Your task to perform on an android device: Add "razer blade" to the cart on ebay.com, then select checkout. Image 0: 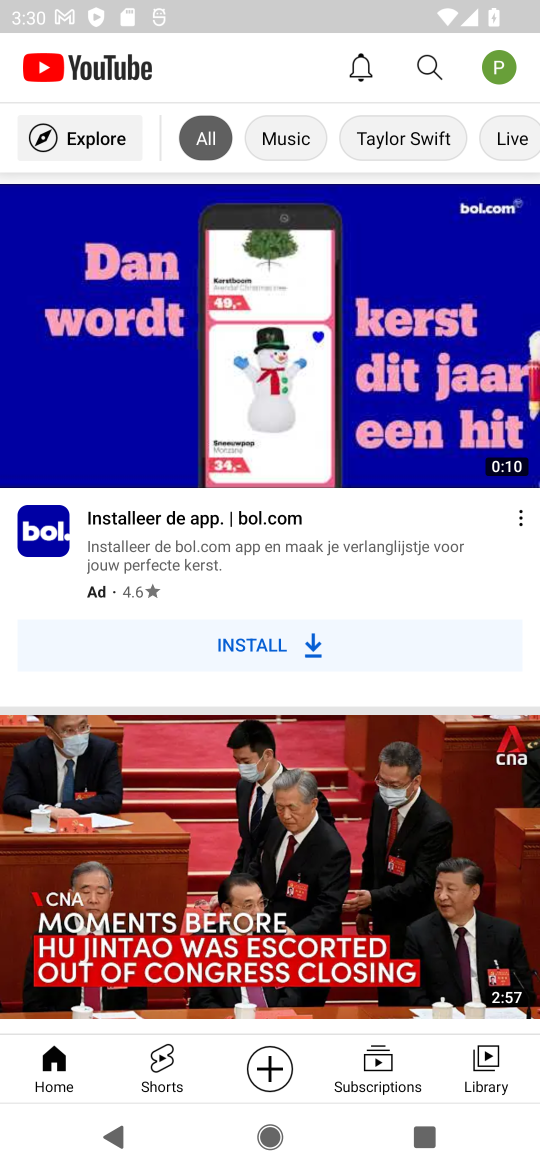
Step 0: press home button
Your task to perform on an android device: Add "razer blade" to the cart on ebay.com, then select checkout. Image 1: 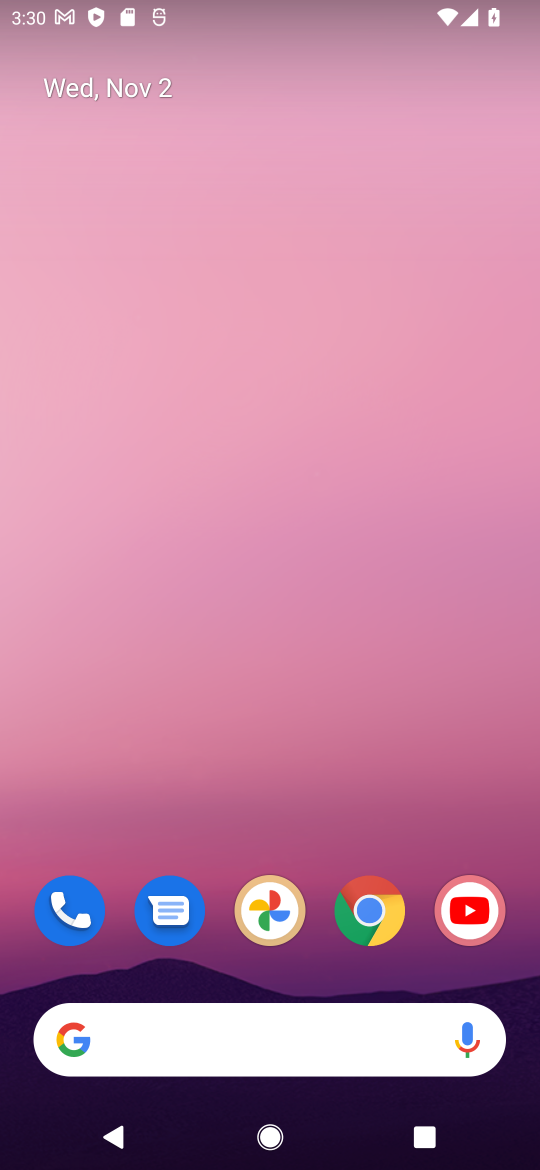
Step 1: click (386, 894)
Your task to perform on an android device: Add "razer blade" to the cart on ebay.com, then select checkout. Image 2: 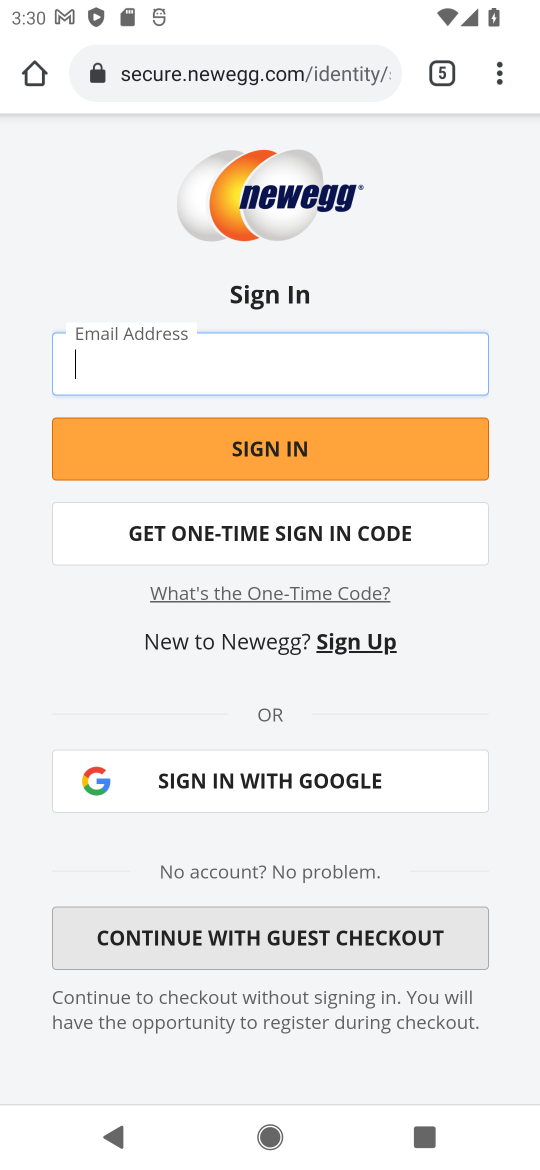
Step 2: click (431, 68)
Your task to perform on an android device: Add "razer blade" to the cart on ebay.com, then select checkout. Image 3: 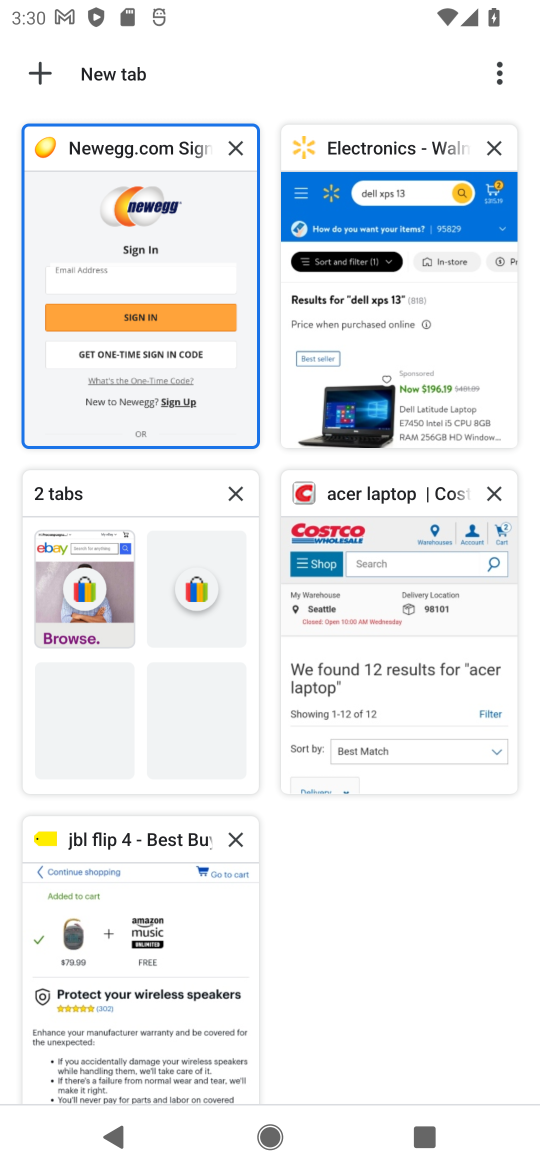
Step 3: click (143, 620)
Your task to perform on an android device: Add "razer blade" to the cart on ebay.com, then select checkout. Image 4: 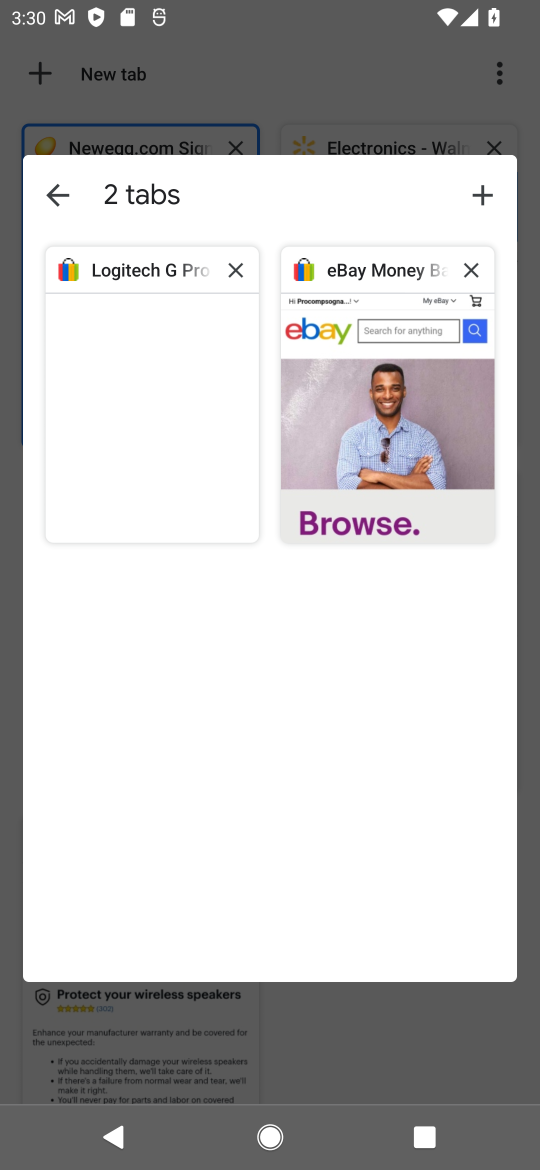
Step 4: click (233, 263)
Your task to perform on an android device: Add "razer blade" to the cart on ebay.com, then select checkout. Image 5: 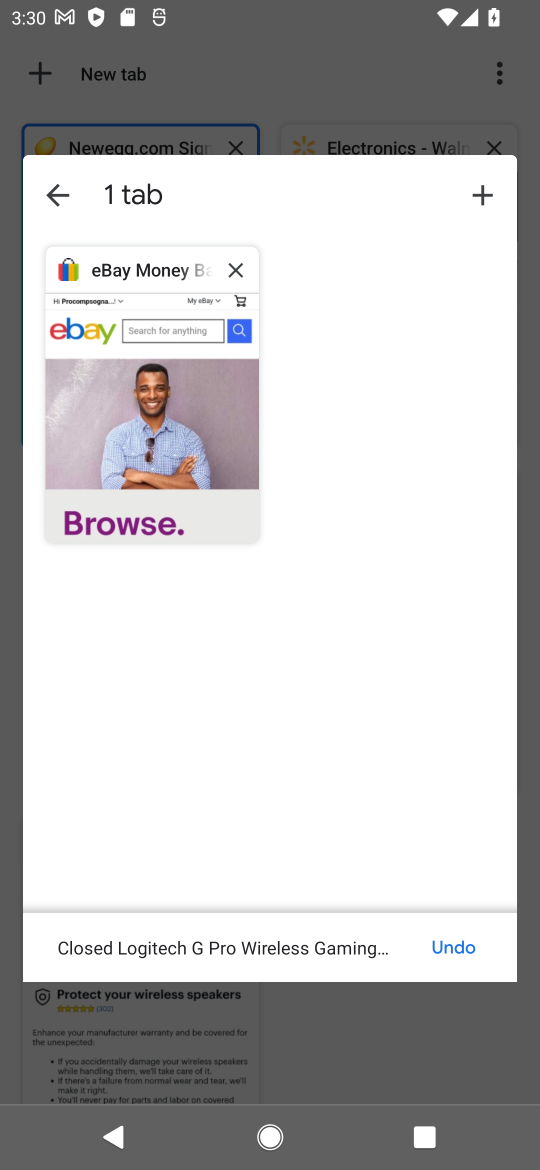
Step 5: click (167, 375)
Your task to perform on an android device: Add "razer blade" to the cart on ebay.com, then select checkout. Image 6: 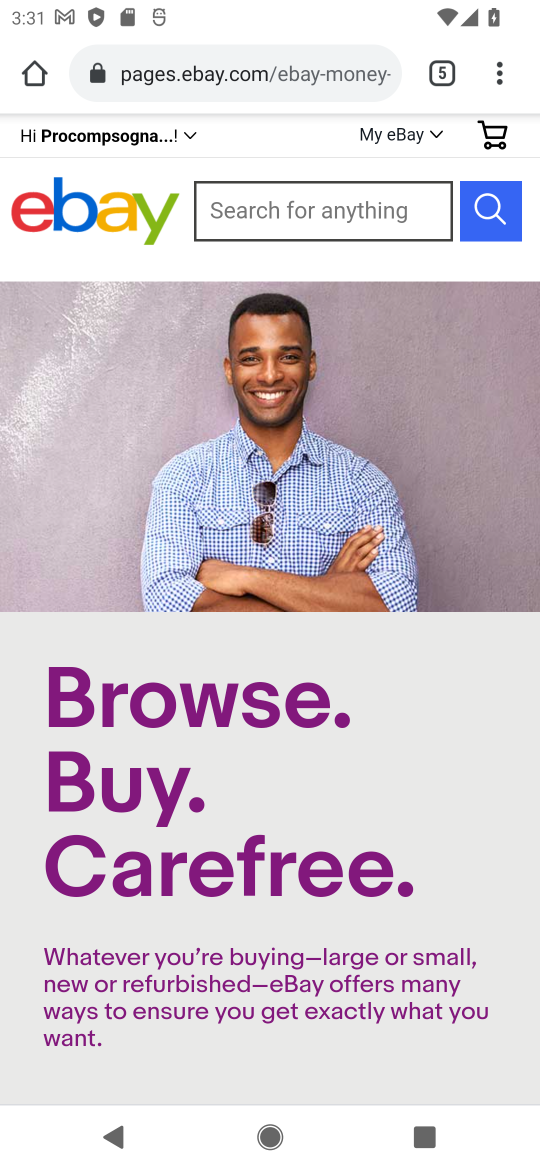
Step 6: click (286, 211)
Your task to perform on an android device: Add "razer blade" to the cart on ebay.com, then select checkout. Image 7: 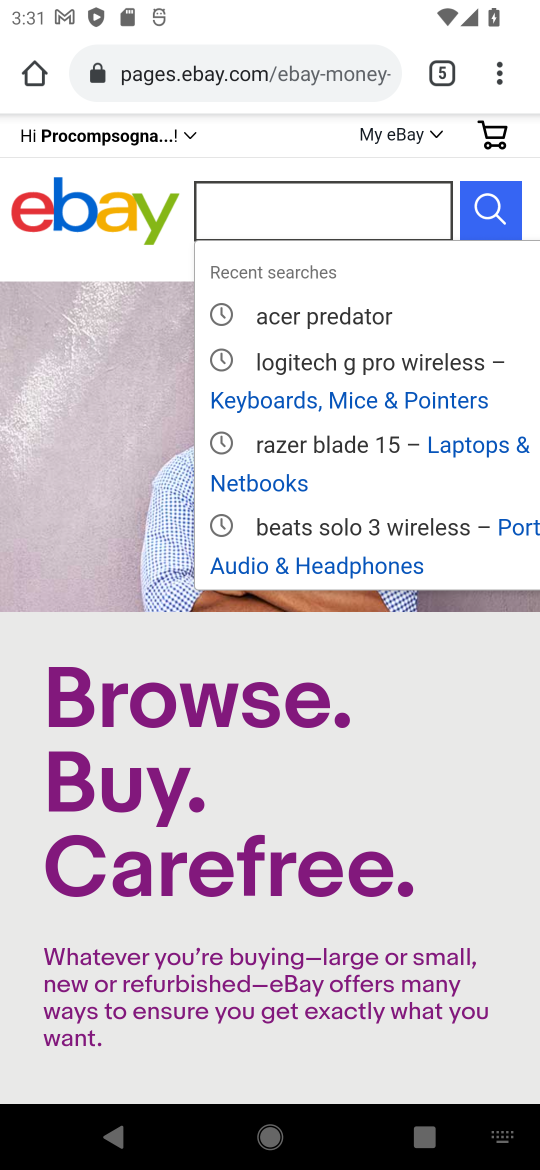
Step 7: type "razer blade"
Your task to perform on an android device: Add "razer blade" to the cart on ebay.com, then select checkout. Image 8: 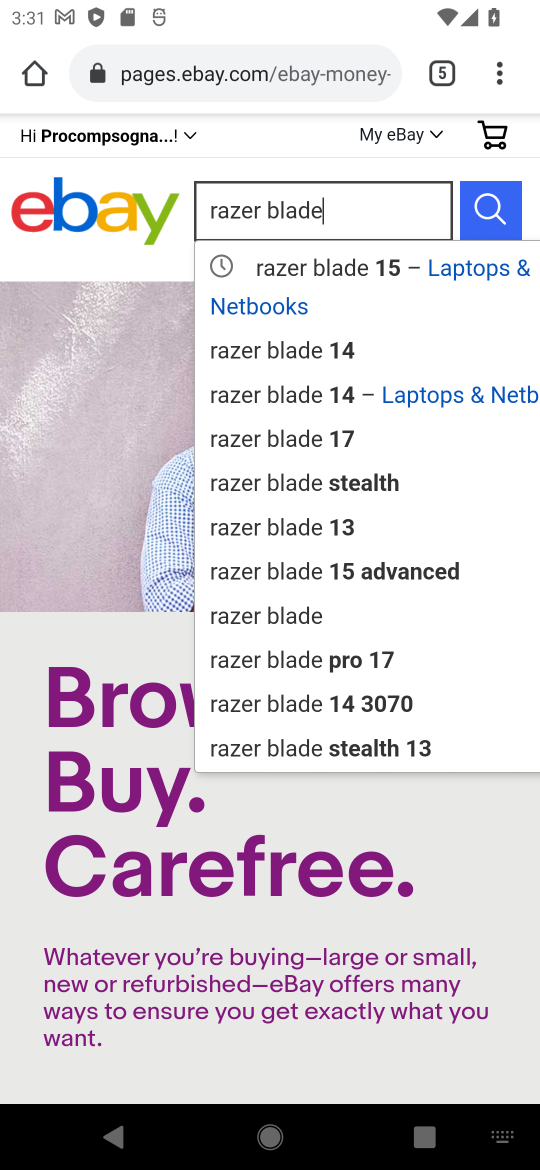
Step 8: click (378, 259)
Your task to perform on an android device: Add "razer blade" to the cart on ebay.com, then select checkout. Image 9: 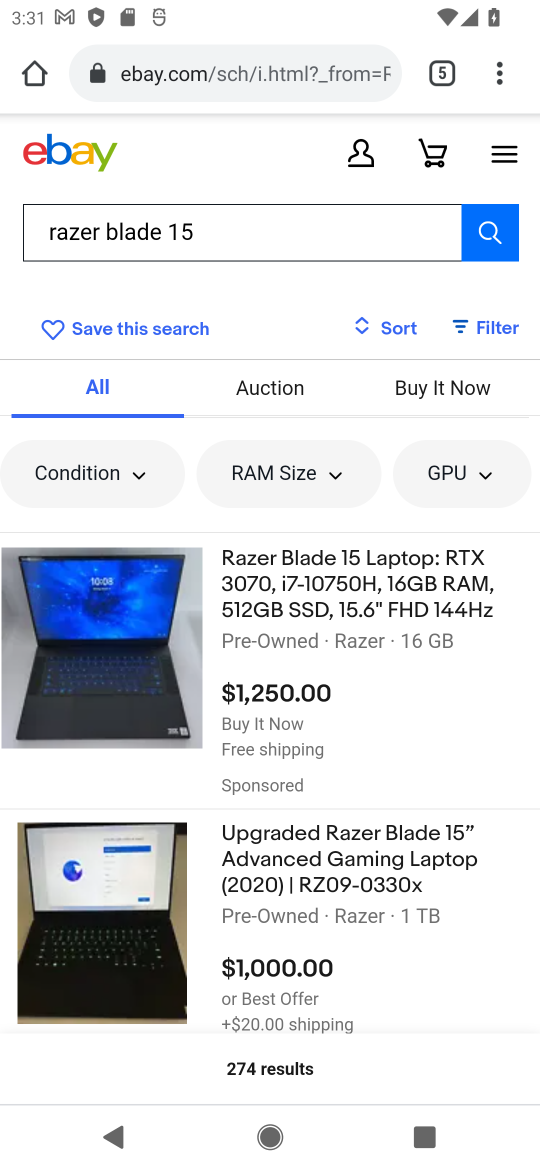
Step 9: click (314, 552)
Your task to perform on an android device: Add "razer blade" to the cart on ebay.com, then select checkout. Image 10: 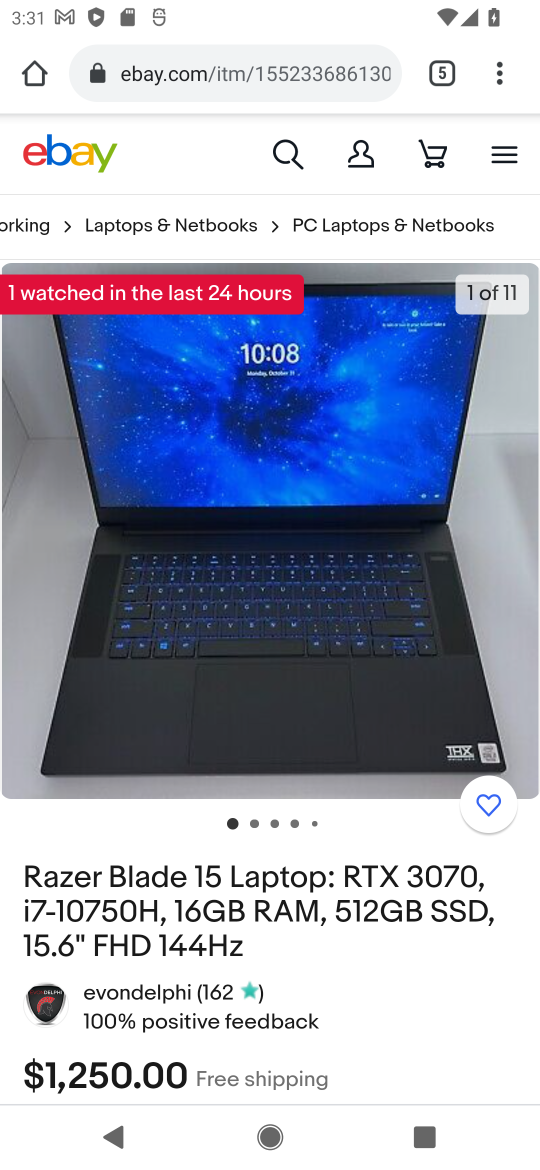
Step 10: drag from (267, 964) to (283, 418)
Your task to perform on an android device: Add "razer blade" to the cart on ebay.com, then select checkout. Image 11: 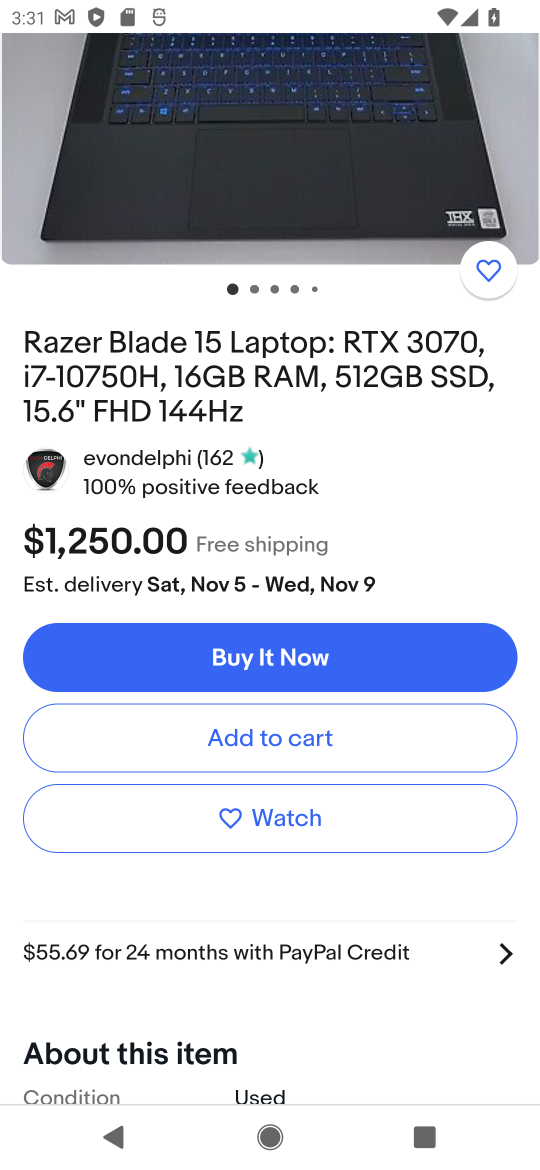
Step 11: click (268, 749)
Your task to perform on an android device: Add "razer blade" to the cart on ebay.com, then select checkout. Image 12: 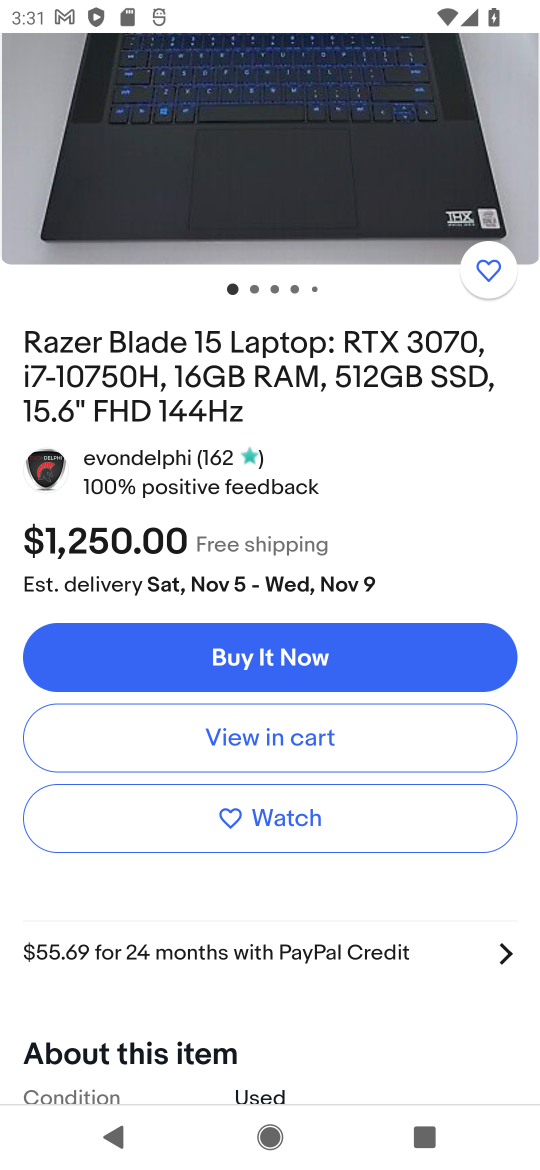
Step 12: task complete